Your task to perform on an android device: check data usage Image 0: 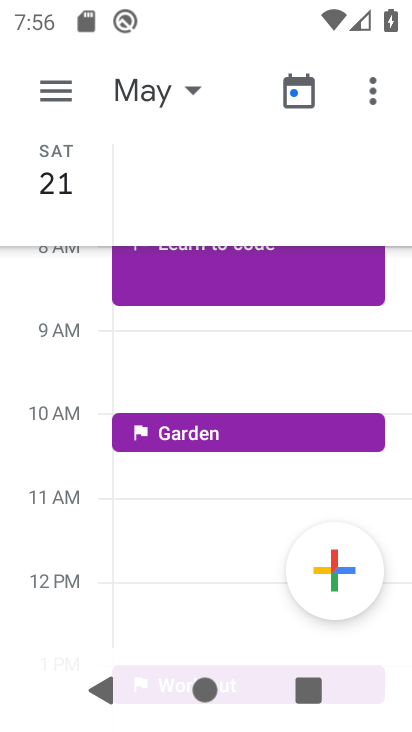
Step 0: press home button
Your task to perform on an android device: check data usage Image 1: 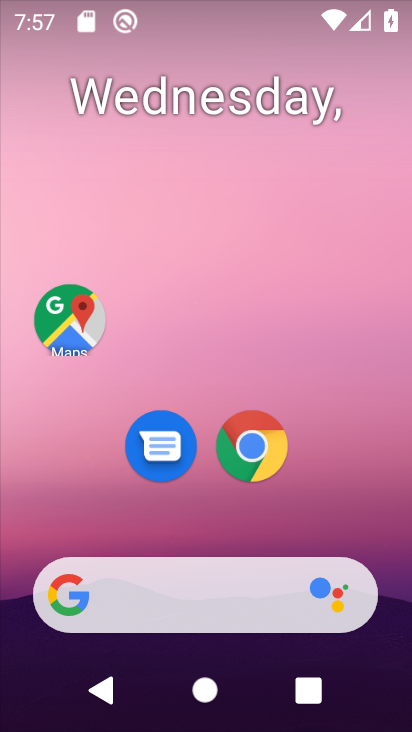
Step 1: drag from (207, 506) to (255, 59)
Your task to perform on an android device: check data usage Image 2: 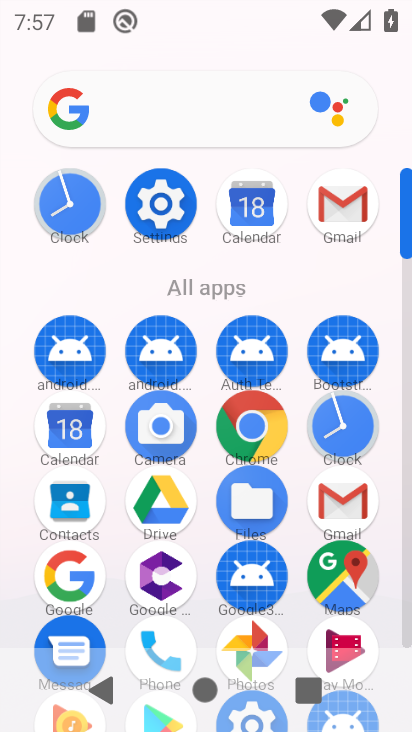
Step 2: click (161, 197)
Your task to perform on an android device: check data usage Image 3: 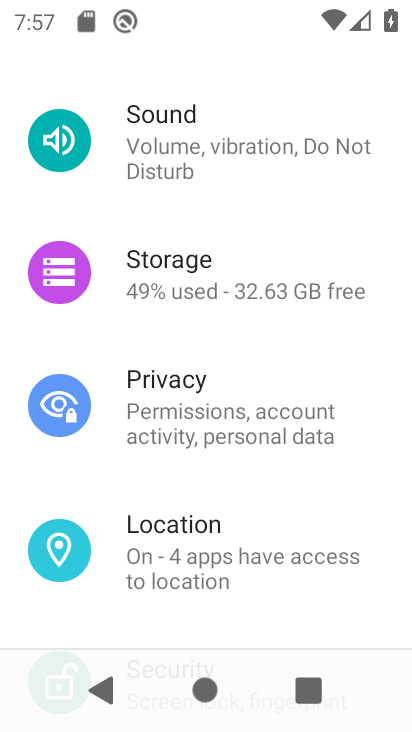
Step 3: drag from (211, 121) to (211, 650)
Your task to perform on an android device: check data usage Image 4: 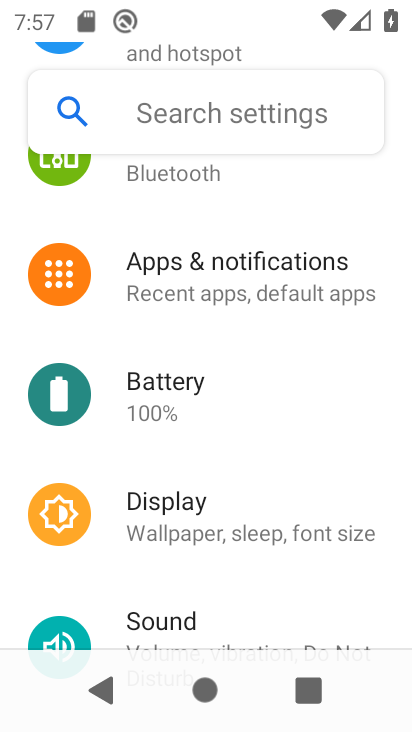
Step 4: drag from (220, 235) to (209, 730)
Your task to perform on an android device: check data usage Image 5: 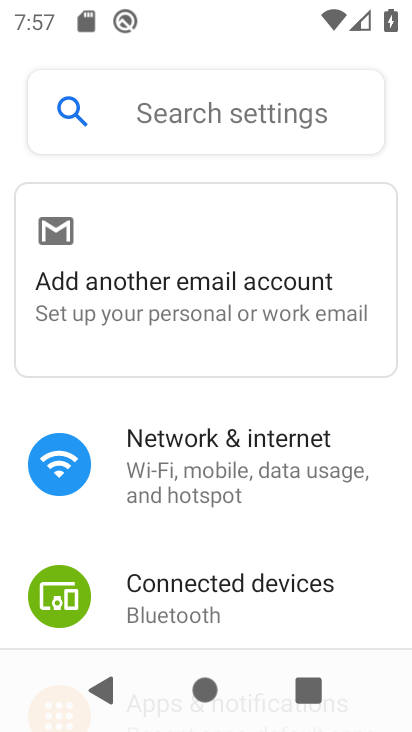
Step 5: click (197, 457)
Your task to perform on an android device: check data usage Image 6: 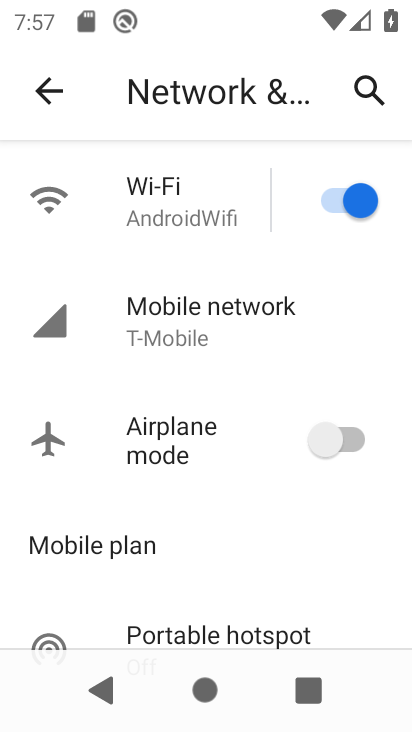
Step 6: click (223, 307)
Your task to perform on an android device: check data usage Image 7: 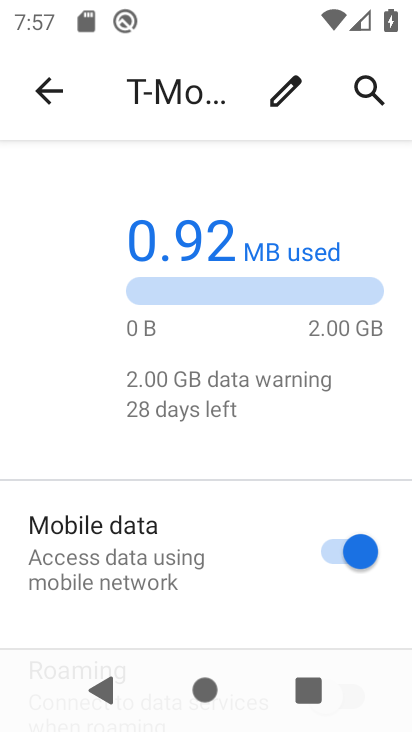
Step 7: drag from (200, 588) to (246, 135)
Your task to perform on an android device: check data usage Image 8: 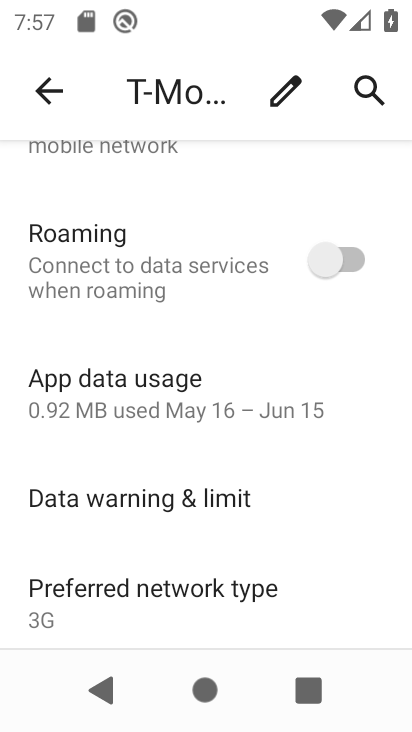
Step 8: click (206, 377)
Your task to perform on an android device: check data usage Image 9: 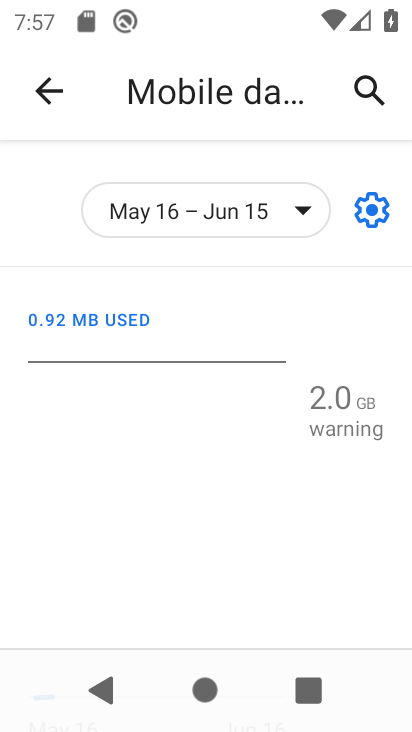
Step 9: task complete